Your task to perform on an android device: open the mobile data screen to see how much data has been used Image 0: 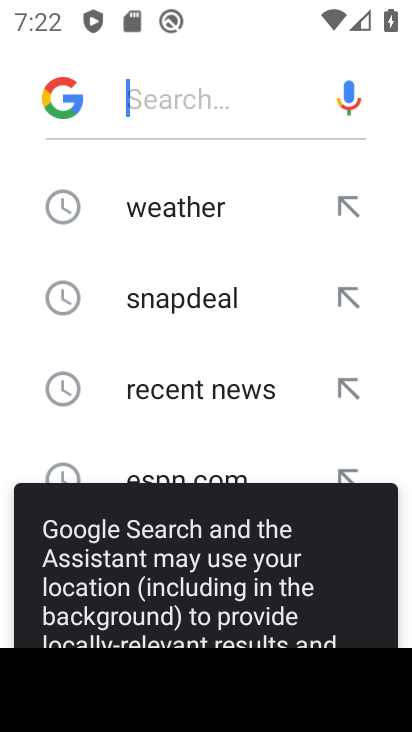
Step 0: press home button
Your task to perform on an android device: open the mobile data screen to see how much data has been used Image 1: 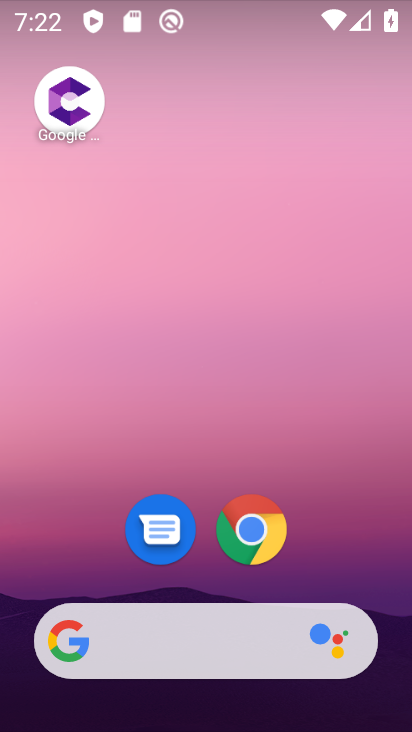
Step 1: drag from (215, 411) to (281, 170)
Your task to perform on an android device: open the mobile data screen to see how much data has been used Image 2: 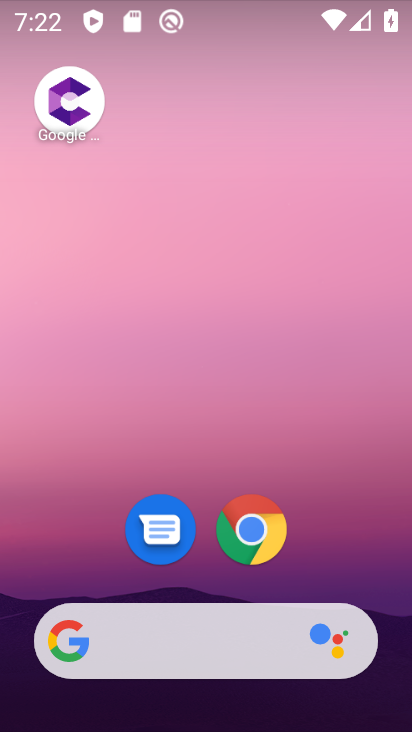
Step 2: drag from (209, 584) to (300, 67)
Your task to perform on an android device: open the mobile data screen to see how much data has been used Image 3: 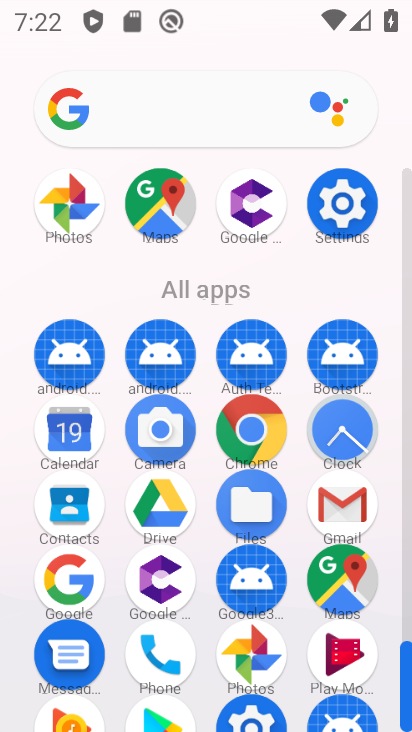
Step 3: click (344, 213)
Your task to perform on an android device: open the mobile data screen to see how much data has been used Image 4: 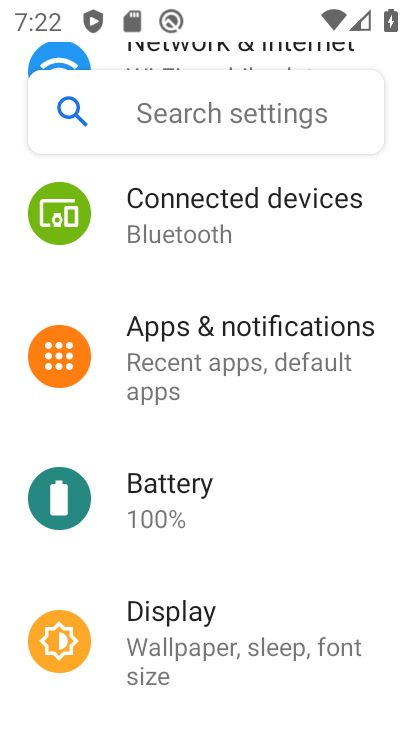
Step 4: drag from (327, 259) to (297, 543)
Your task to perform on an android device: open the mobile data screen to see how much data has been used Image 5: 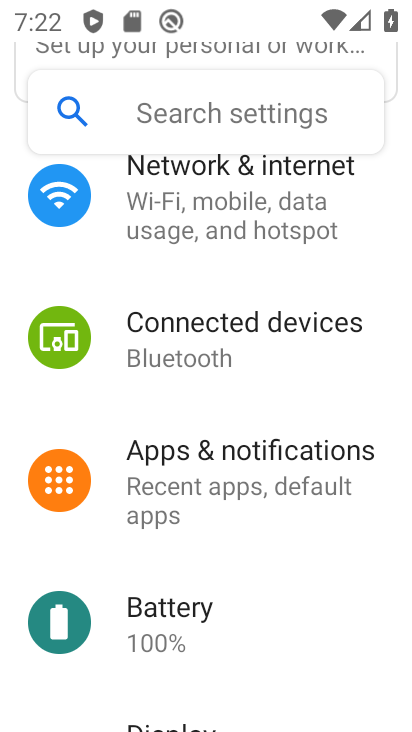
Step 5: click (250, 169)
Your task to perform on an android device: open the mobile data screen to see how much data has been used Image 6: 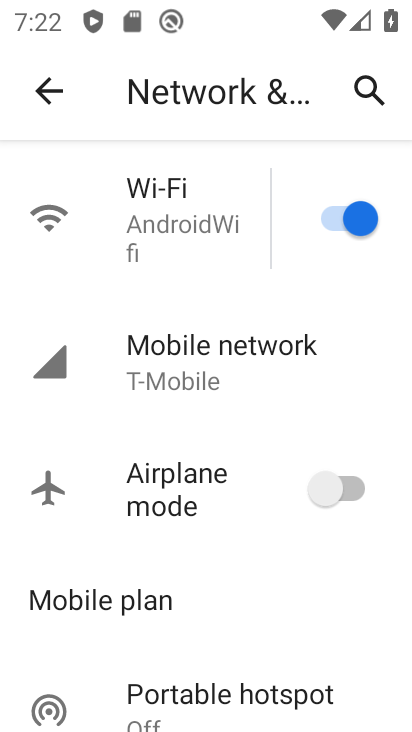
Step 6: click (194, 344)
Your task to perform on an android device: open the mobile data screen to see how much data has been used Image 7: 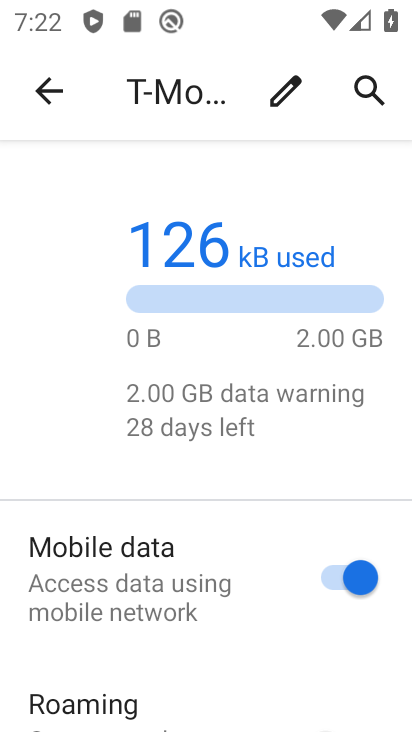
Step 7: drag from (191, 621) to (323, 208)
Your task to perform on an android device: open the mobile data screen to see how much data has been used Image 8: 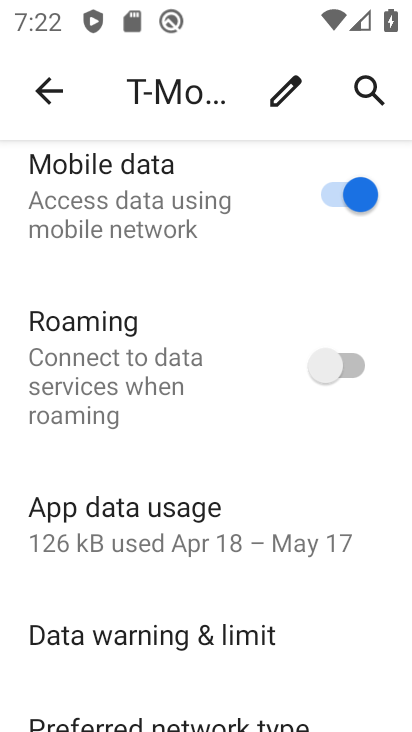
Step 8: drag from (180, 652) to (324, 198)
Your task to perform on an android device: open the mobile data screen to see how much data has been used Image 9: 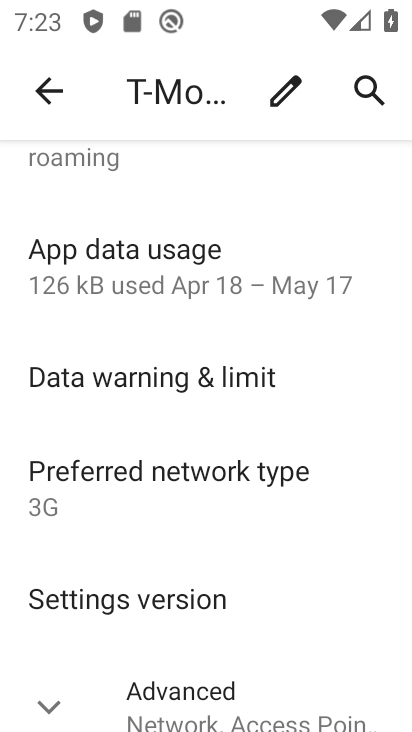
Step 9: drag from (232, 579) to (314, 127)
Your task to perform on an android device: open the mobile data screen to see how much data has been used Image 10: 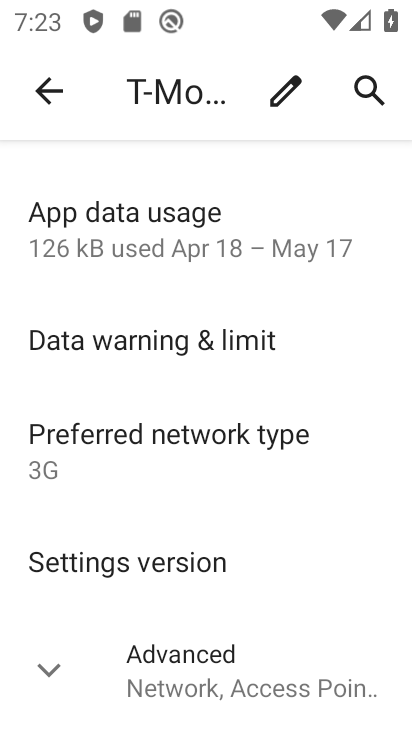
Step 10: click (85, 671)
Your task to perform on an android device: open the mobile data screen to see how much data has been used Image 11: 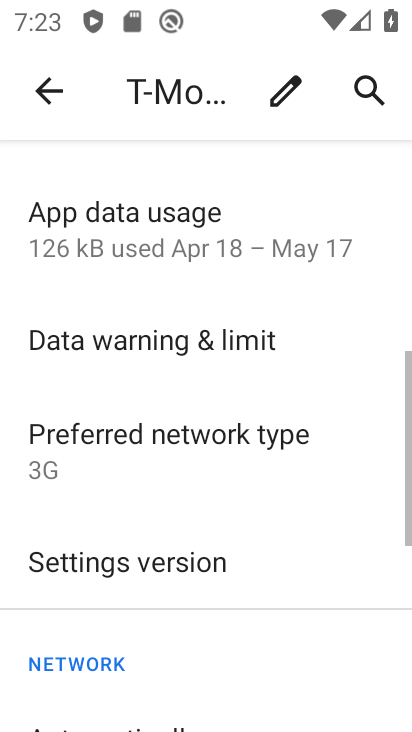
Step 11: task complete